Your task to perform on an android device: Open maps Image 0: 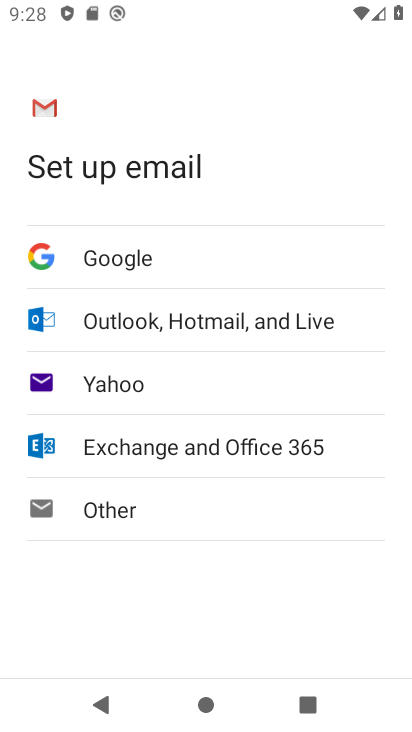
Step 0: press home button
Your task to perform on an android device: Open maps Image 1: 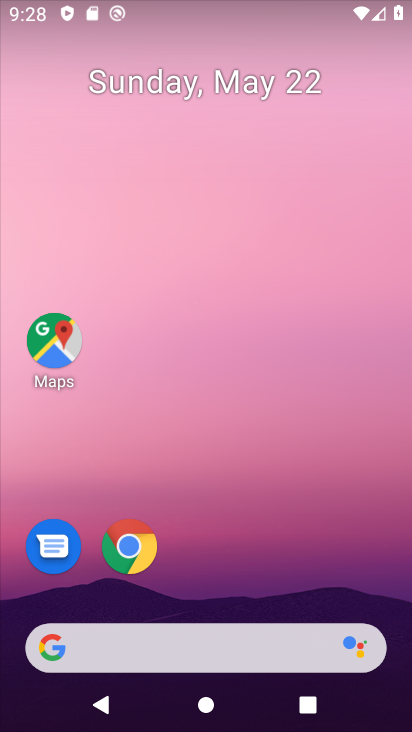
Step 1: click (50, 325)
Your task to perform on an android device: Open maps Image 2: 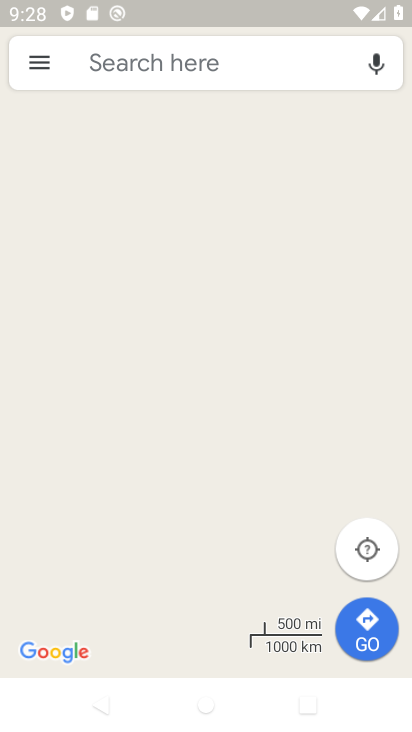
Step 2: task complete